Your task to perform on an android device: Open Google Chrome and open the bookmarks view Image 0: 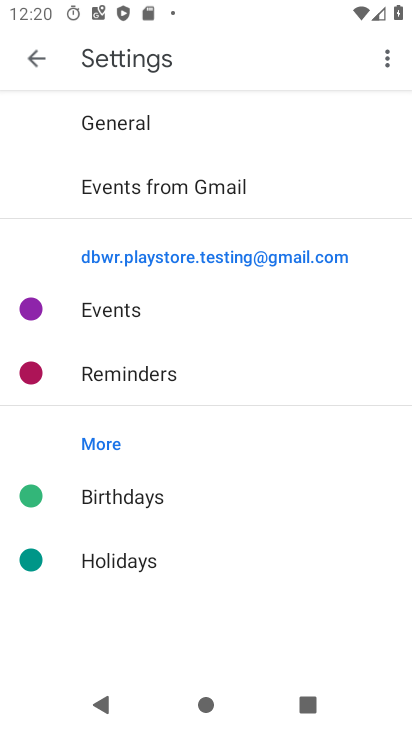
Step 0: press home button
Your task to perform on an android device: Open Google Chrome and open the bookmarks view Image 1: 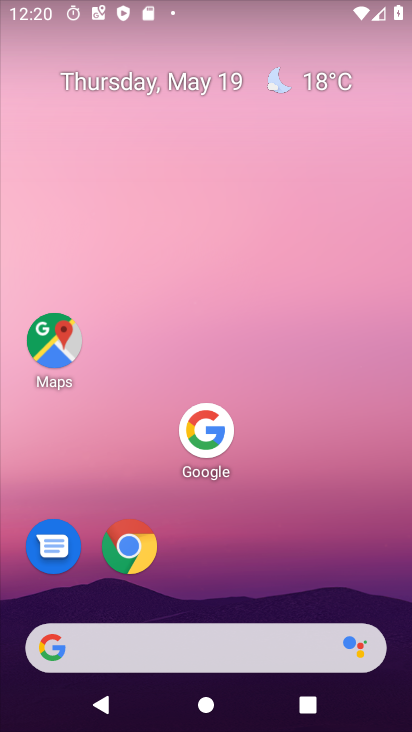
Step 1: click (127, 547)
Your task to perform on an android device: Open Google Chrome and open the bookmarks view Image 2: 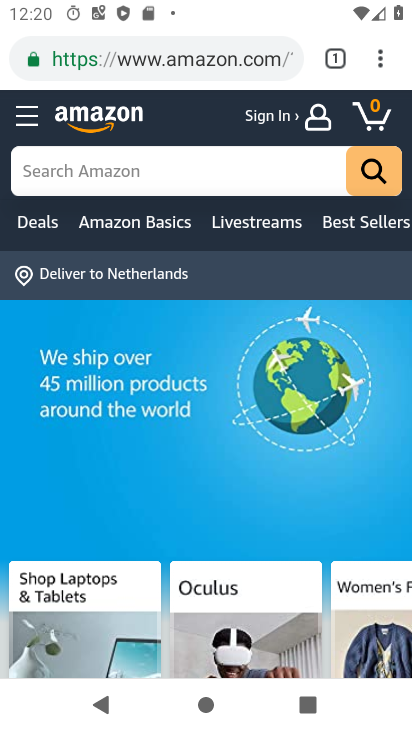
Step 2: click (371, 63)
Your task to perform on an android device: Open Google Chrome and open the bookmarks view Image 3: 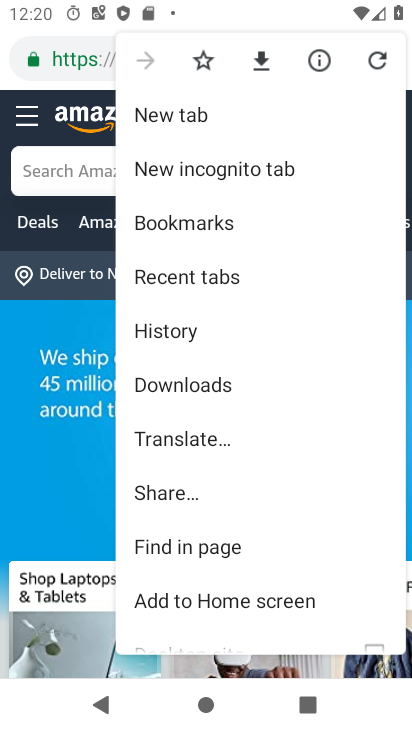
Step 3: drag from (222, 532) to (246, 150)
Your task to perform on an android device: Open Google Chrome and open the bookmarks view Image 4: 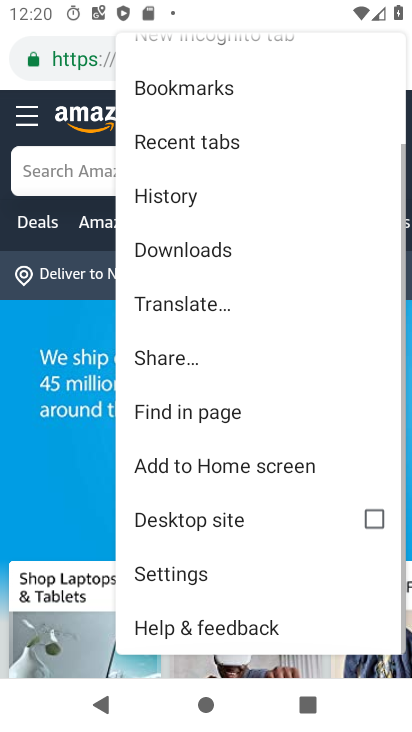
Step 4: click (175, 577)
Your task to perform on an android device: Open Google Chrome and open the bookmarks view Image 5: 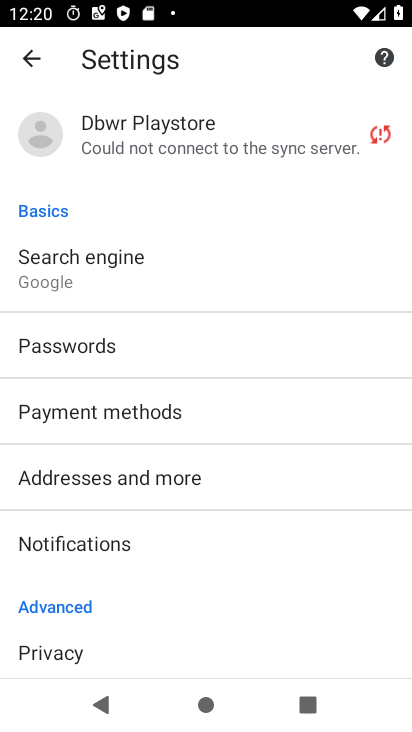
Step 5: task complete